Your task to perform on an android device: change the clock display to analog Image 0: 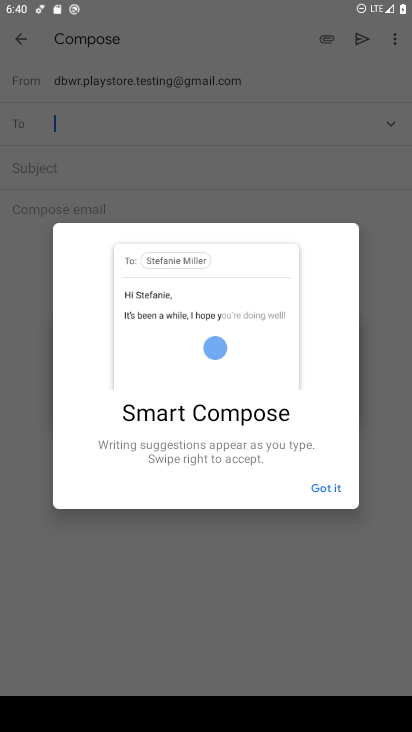
Step 0: press home button
Your task to perform on an android device: change the clock display to analog Image 1: 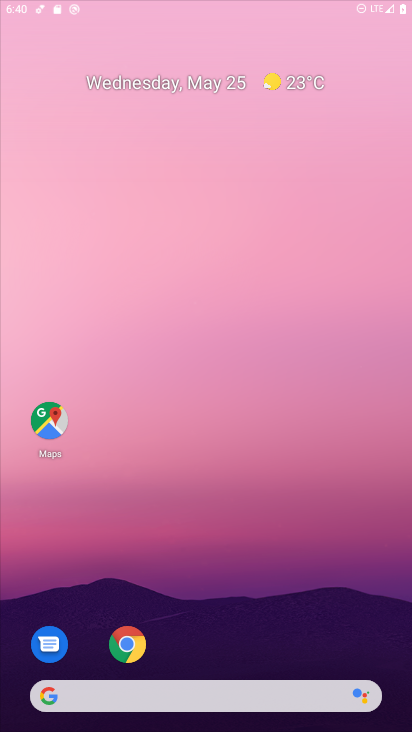
Step 1: drag from (378, 634) to (385, 155)
Your task to perform on an android device: change the clock display to analog Image 2: 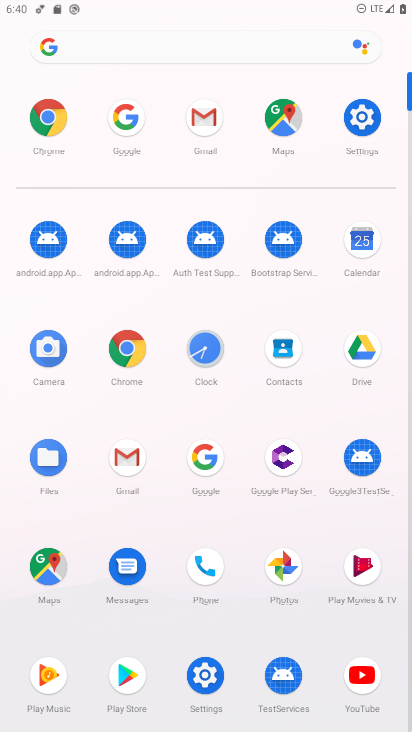
Step 2: click (196, 353)
Your task to perform on an android device: change the clock display to analog Image 3: 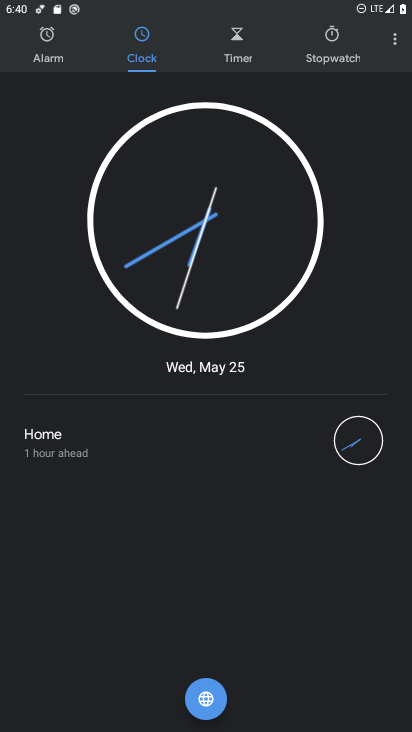
Step 3: click (392, 37)
Your task to perform on an android device: change the clock display to analog Image 4: 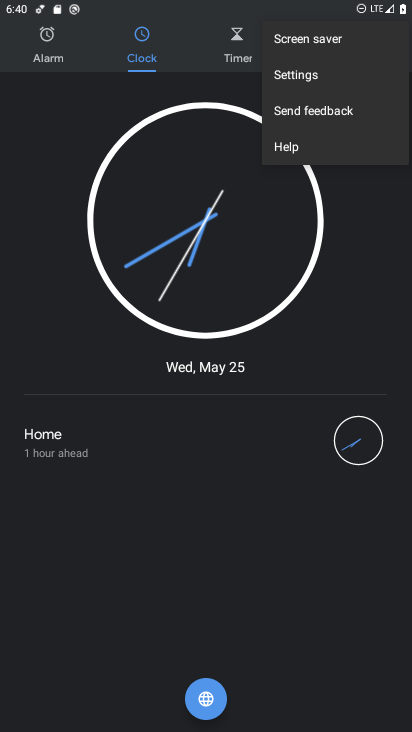
Step 4: click (304, 84)
Your task to perform on an android device: change the clock display to analog Image 5: 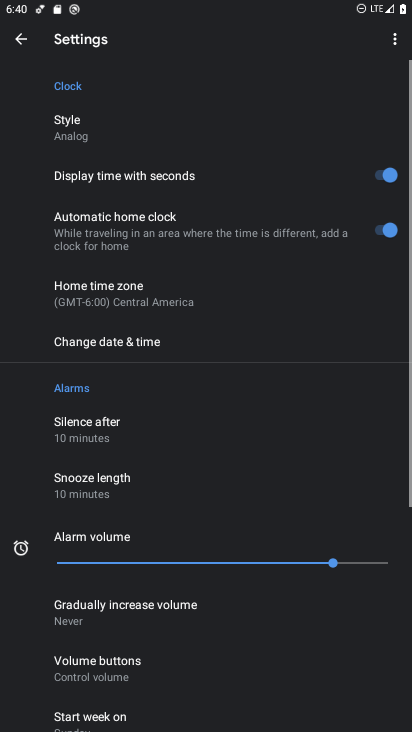
Step 5: click (109, 126)
Your task to perform on an android device: change the clock display to analog Image 6: 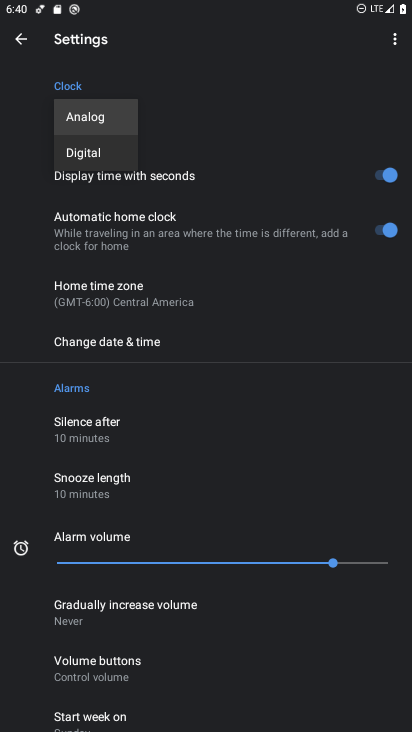
Step 6: click (109, 126)
Your task to perform on an android device: change the clock display to analog Image 7: 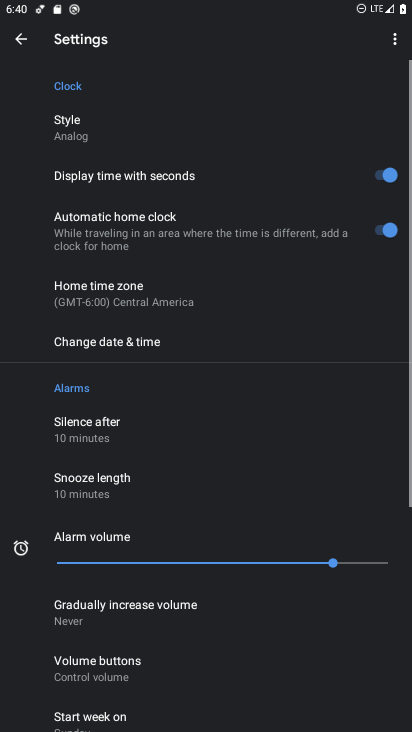
Step 7: task complete